Your task to perform on an android device: Open the calendar app, open the side menu, and click the "Day" option Image 0: 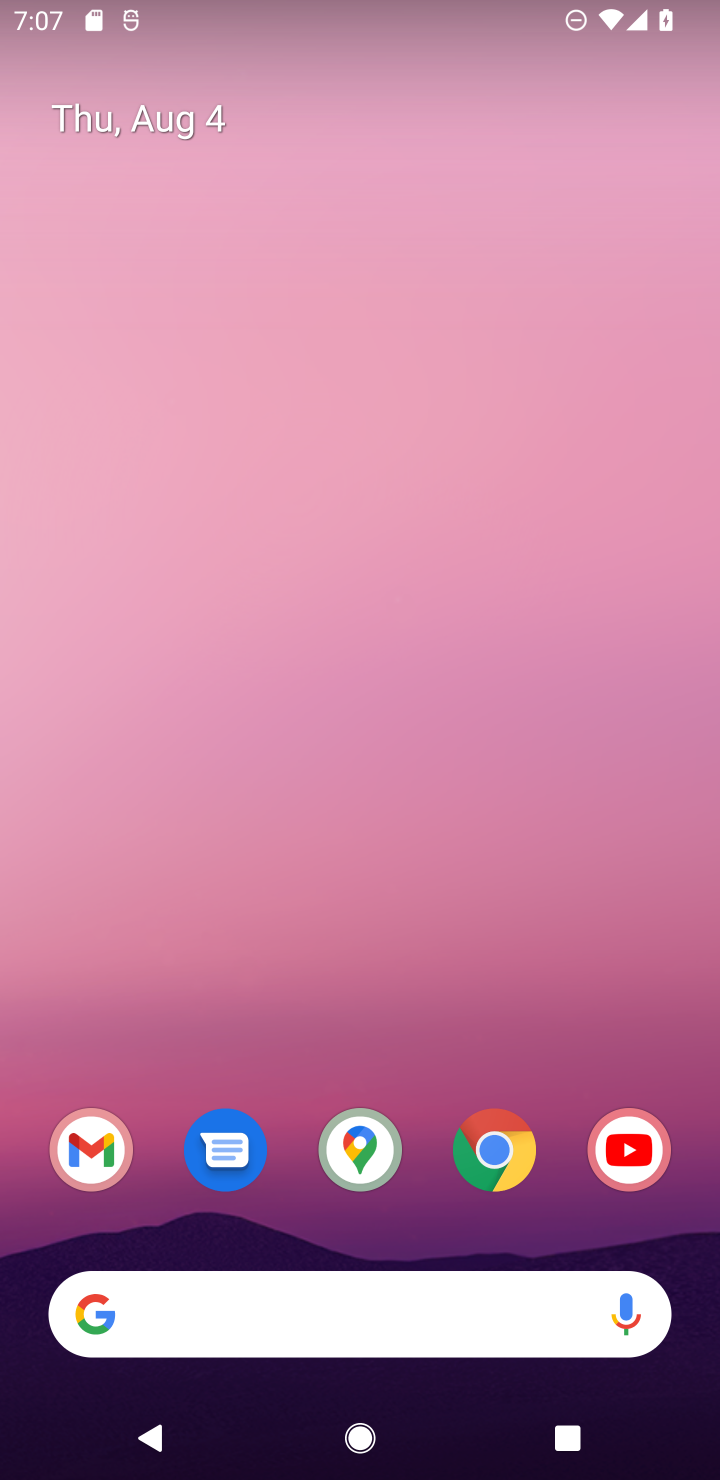
Step 0: drag from (499, 1160) to (226, 3)
Your task to perform on an android device: Open the calendar app, open the side menu, and click the "Day" option Image 1: 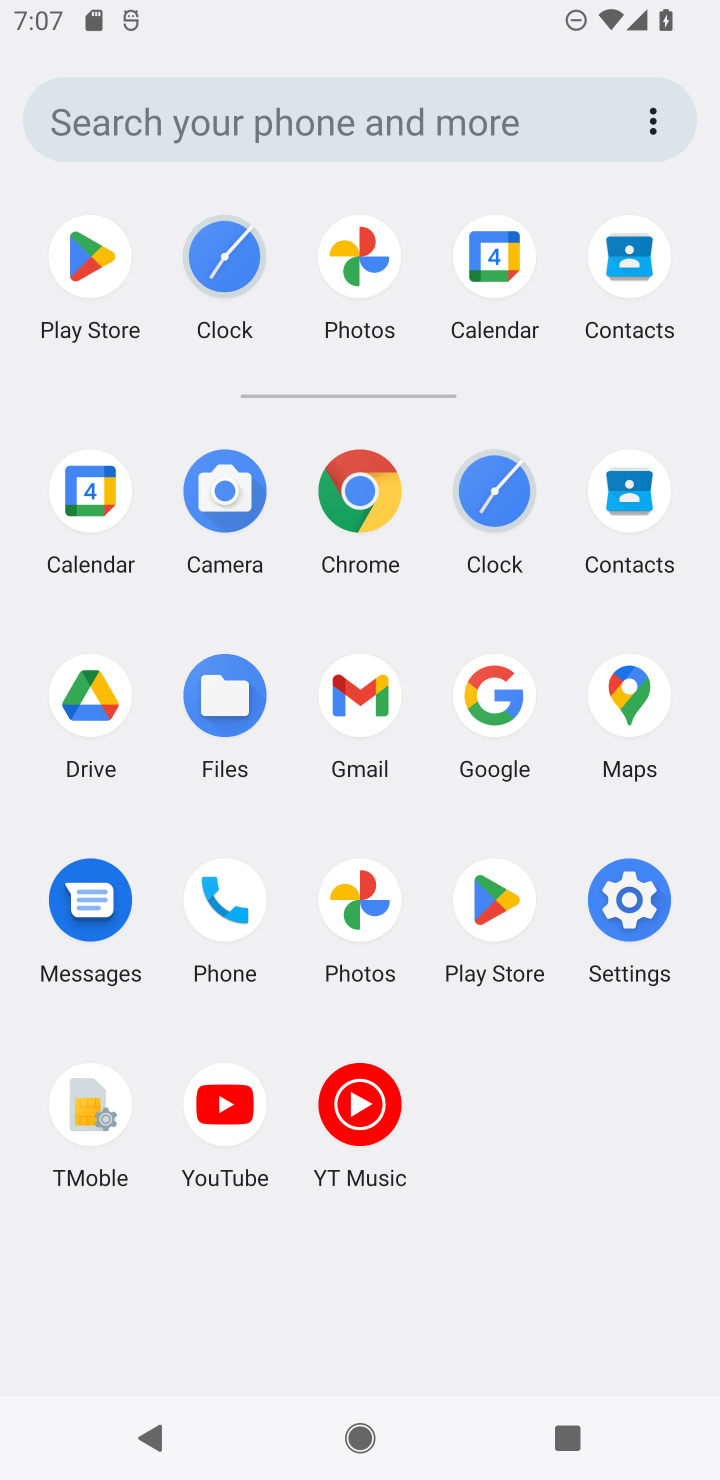
Step 1: click (86, 474)
Your task to perform on an android device: Open the calendar app, open the side menu, and click the "Day" option Image 2: 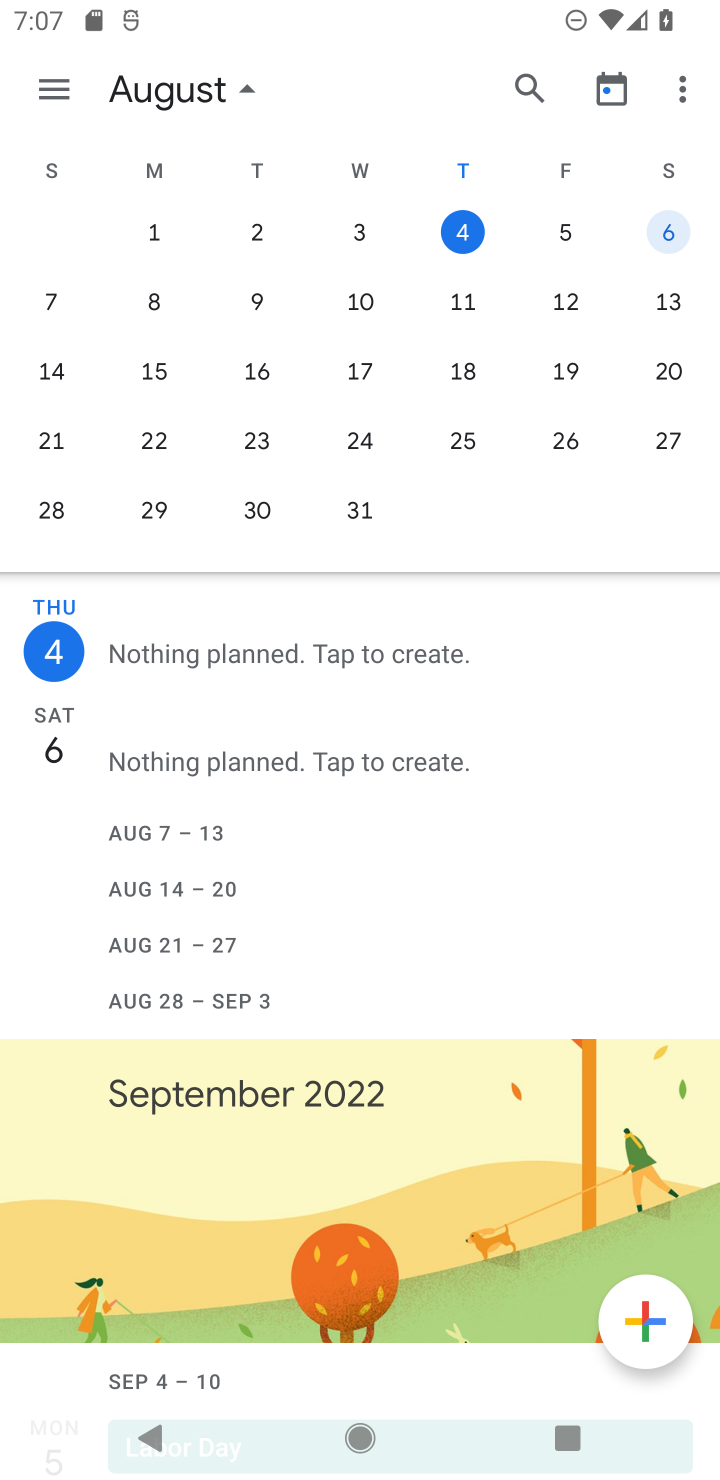
Step 2: click (67, 83)
Your task to perform on an android device: Open the calendar app, open the side menu, and click the "Day" option Image 3: 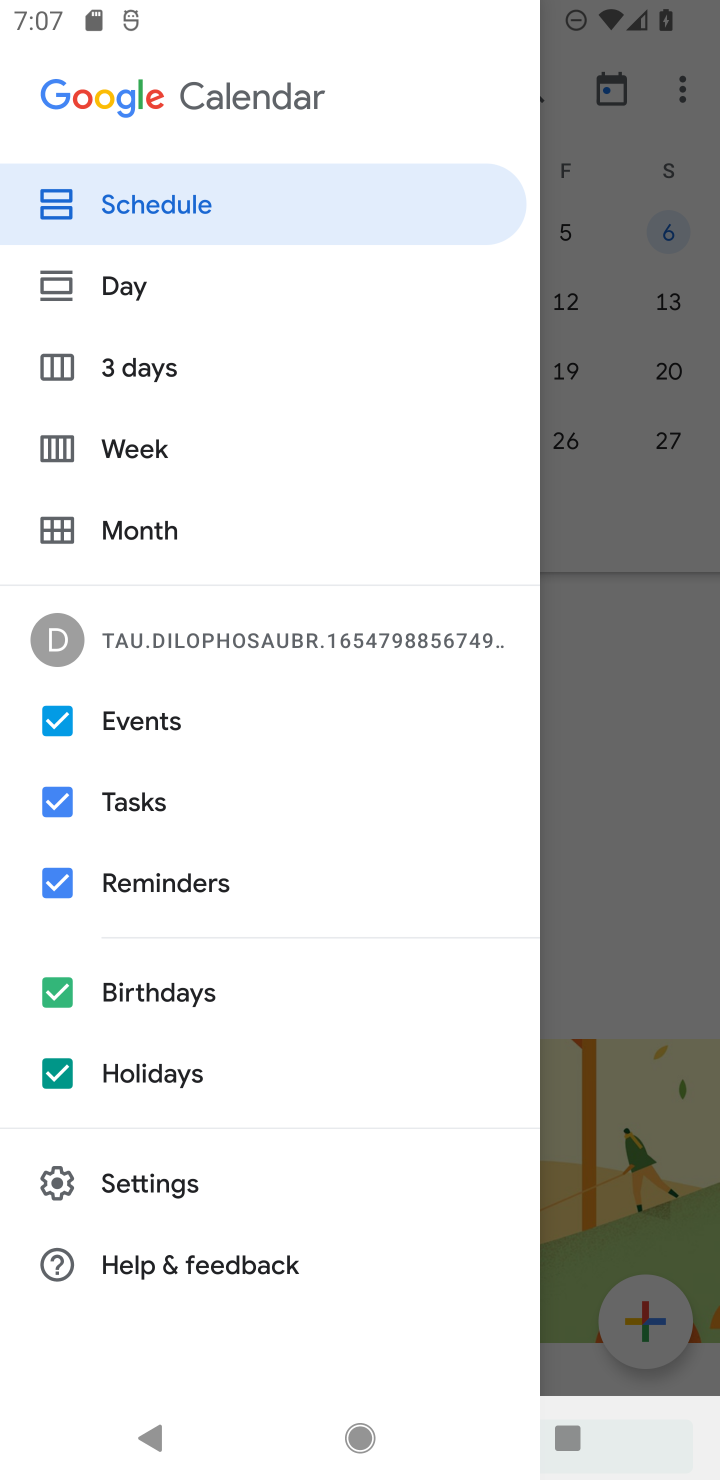
Step 3: click (198, 261)
Your task to perform on an android device: Open the calendar app, open the side menu, and click the "Day" option Image 4: 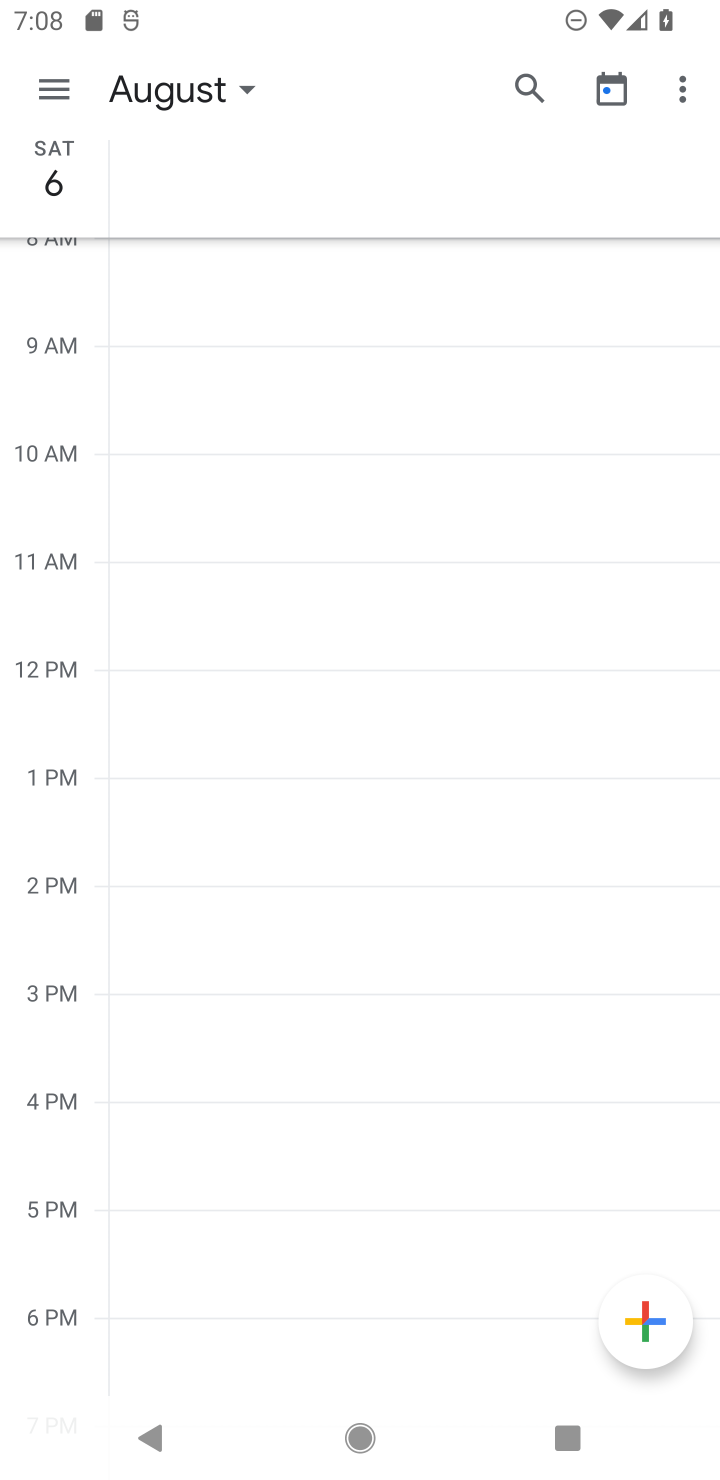
Step 4: task complete